Your task to perform on an android device: Open calendar and show me the first week of next month Image 0: 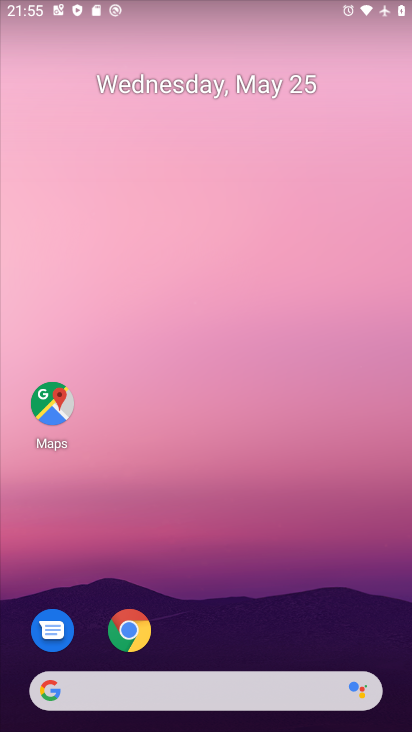
Step 0: drag from (200, 657) to (211, 354)
Your task to perform on an android device: Open calendar and show me the first week of next month Image 1: 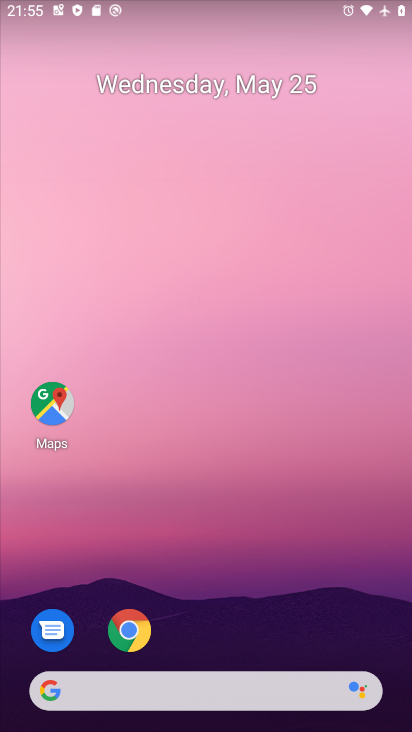
Step 1: drag from (192, 648) to (191, 212)
Your task to perform on an android device: Open calendar and show me the first week of next month Image 2: 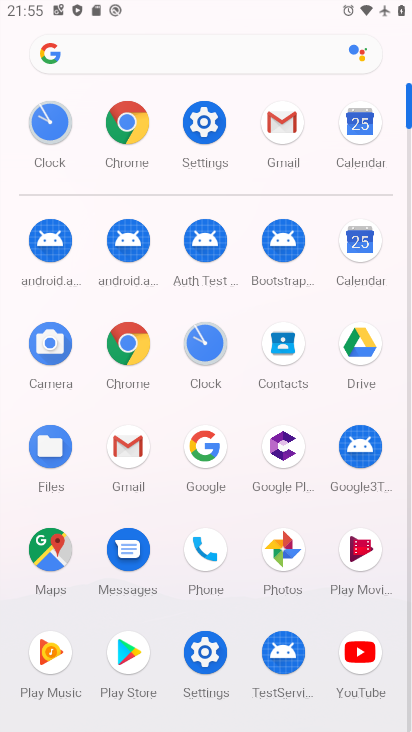
Step 2: click (359, 253)
Your task to perform on an android device: Open calendar and show me the first week of next month Image 3: 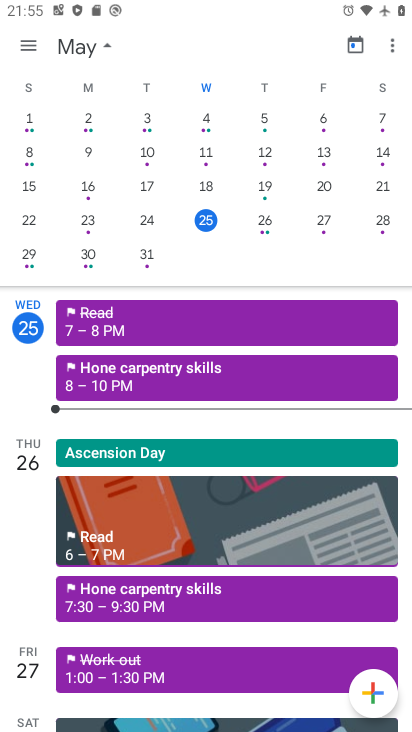
Step 3: drag from (337, 181) to (13, 152)
Your task to perform on an android device: Open calendar and show me the first week of next month Image 4: 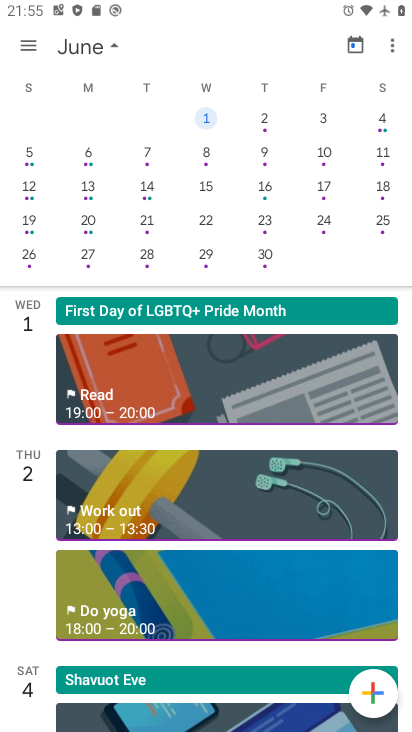
Step 4: click (207, 117)
Your task to perform on an android device: Open calendar and show me the first week of next month Image 5: 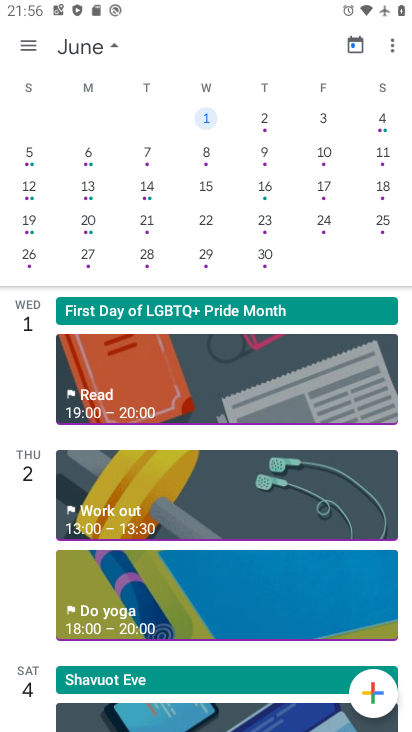
Step 5: task complete